Your task to perform on an android device: Open Google Chrome and open the bookmarks view Image 0: 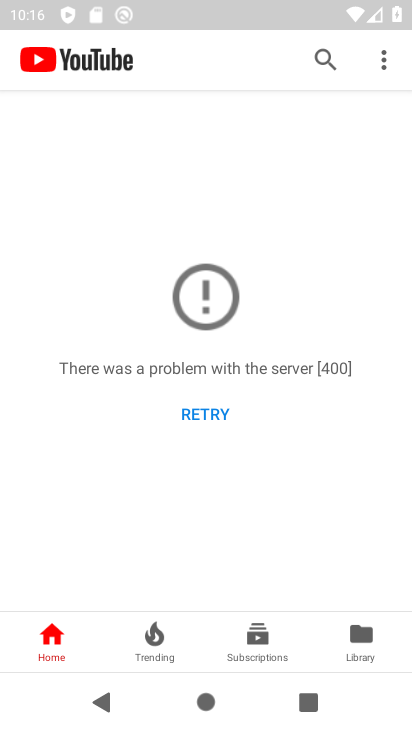
Step 0: press home button
Your task to perform on an android device: Open Google Chrome and open the bookmarks view Image 1: 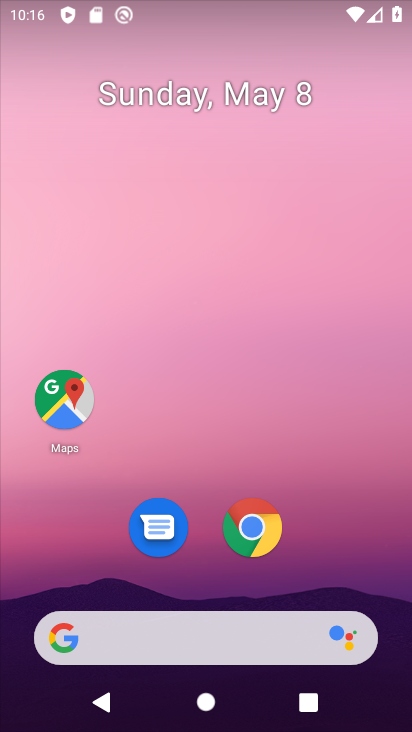
Step 1: click (246, 546)
Your task to perform on an android device: Open Google Chrome and open the bookmarks view Image 2: 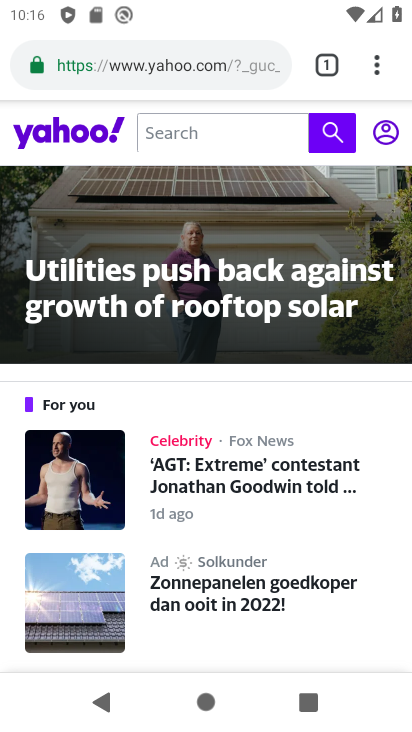
Step 2: task complete